Your task to perform on an android device: Open Chrome and go to settings Image 0: 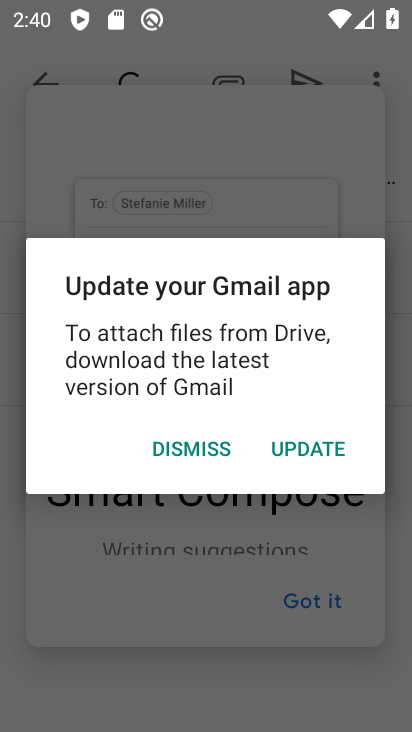
Step 0: press home button
Your task to perform on an android device: Open Chrome and go to settings Image 1: 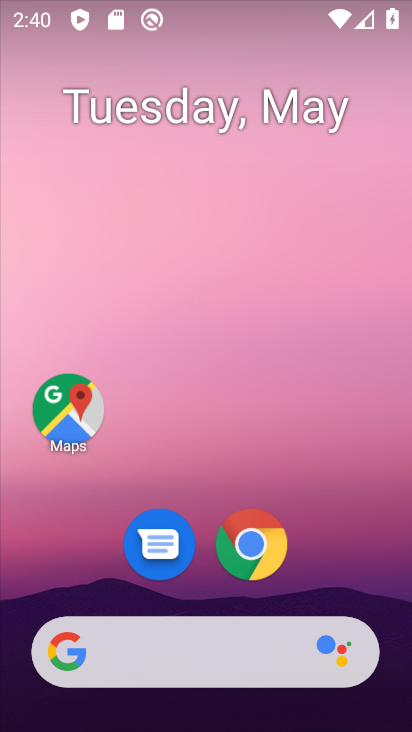
Step 1: click (254, 545)
Your task to perform on an android device: Open Chrome and go to settings Image 2: 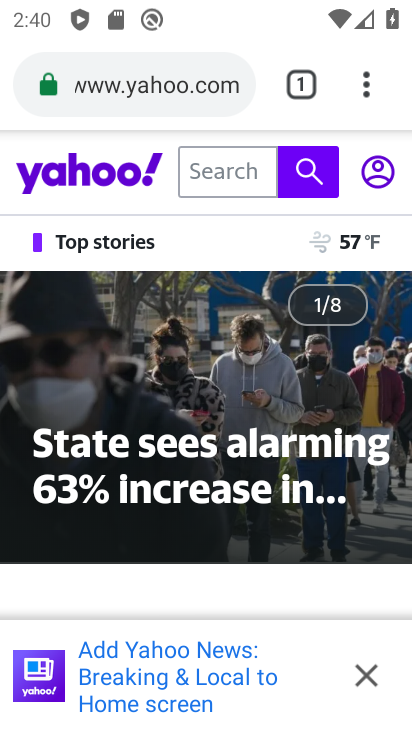
Step 2: click (368, 84)
Your task to perform on an android device: Open Chrome and go to settings Image 3: 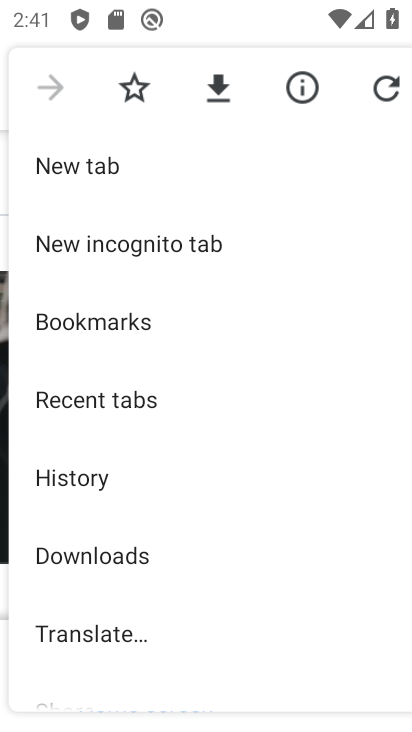
Step 3: drag from (168, 496) to (229, 365)
Your task to perform on an android device: Open Chrome and go to settings Image 4: 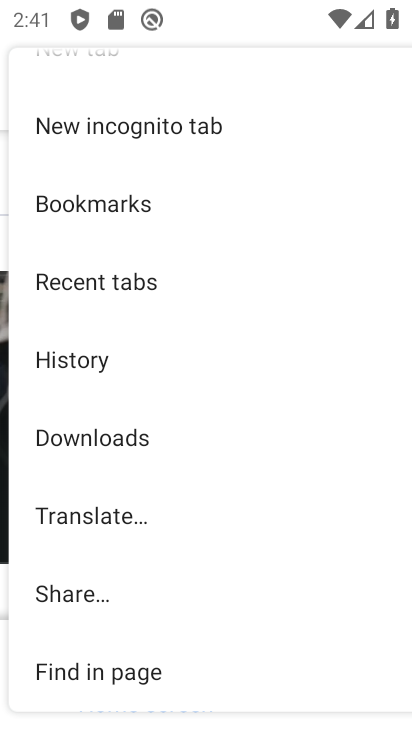
Step 4: drag from (157, 560) to (219, 469)
Your task to perform on an android device: Open Chrome and go to settings Image 5: 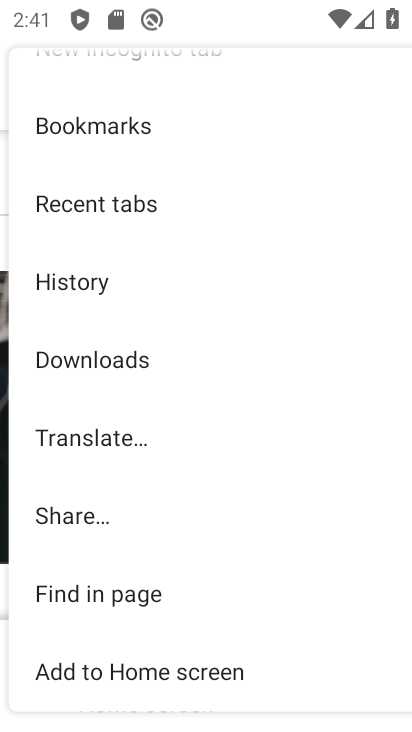
Step 5: drag from (134, 632) to (210, 500)
Your task to perform on an android device: Open Chrome and go to settings Image 6: 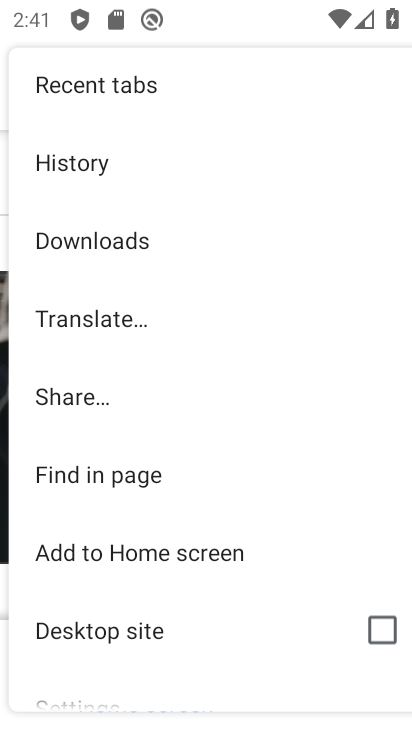
Step 6: drag from (132, 594) to (271, 385)
Your task to perform on an android device: Open Chrome and go to settings Image 7: 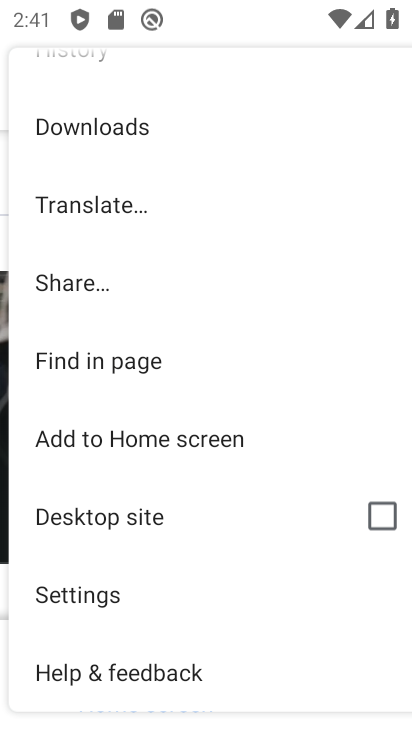
Step 7: click (85, 595)
Your task to perform on an android device: Open Chrome and go to settings Image 8: 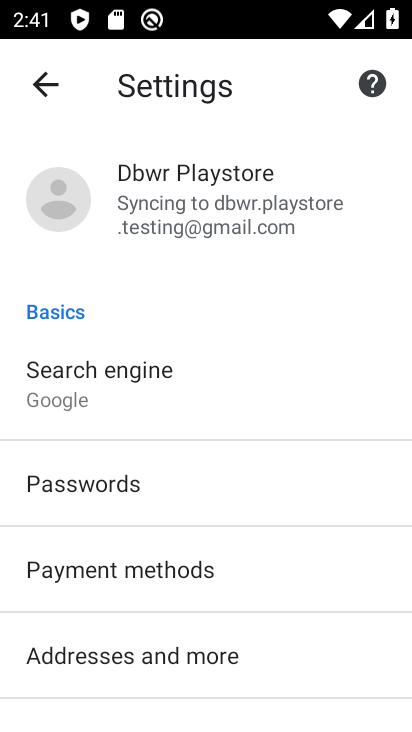
Step 8: task complete